Your task to perform on an android device: Search for Mexican restaurants on Maps Image 0: 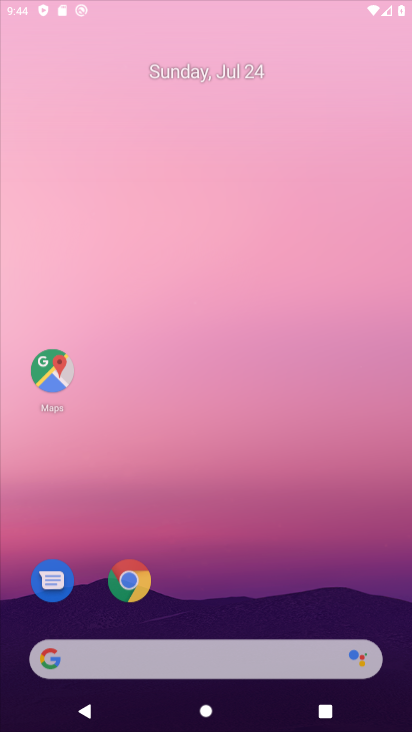
Step 0: drag from (260, 231) to (267, 146)
Your task to perform on an android device: Search for Mexican restaurants on Maps Image 1: 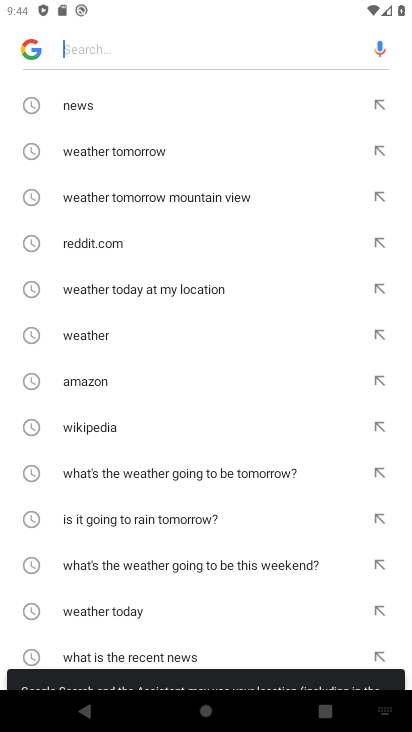
Step 1: press back button
Your task to perform on an android device: Search for Mexican restaurants on Maps Image 2: 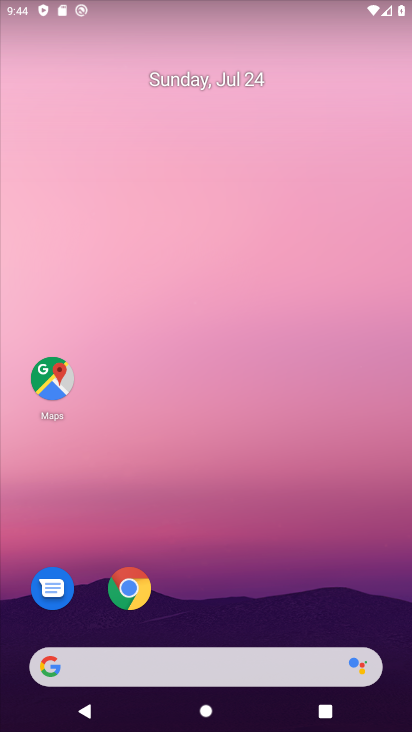
Step 2: drag from (231, 477) to (213, 74)
Your task to perform on an android device: Search for Mexican restaurants on Maps Image 3: 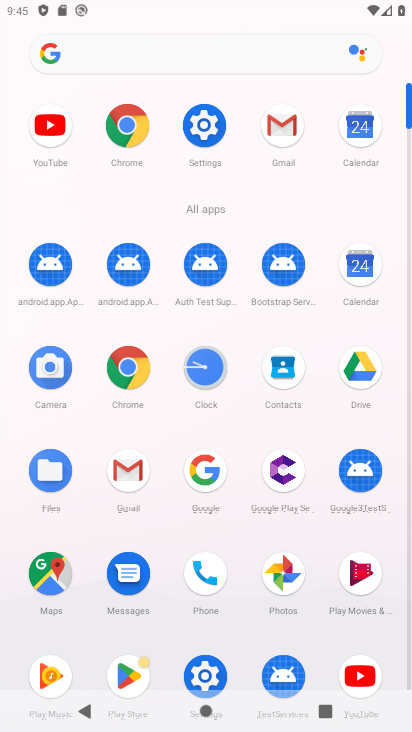
Step 3: click (56, 580)
Your task to perform on an android device: Search for Mexican restaurants on Maps Image 4: 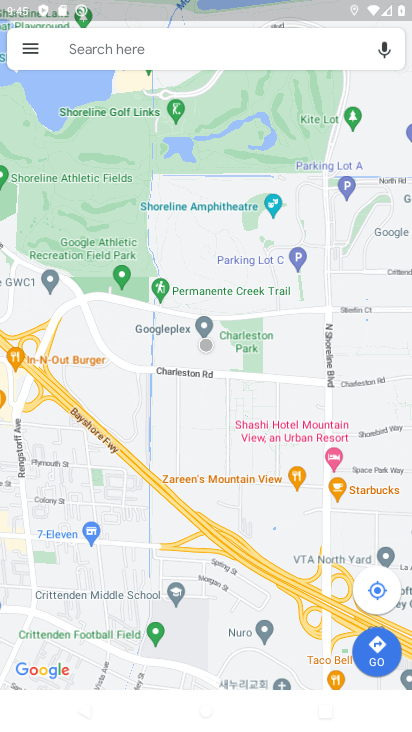
Step 4: click (71, 35)
Your task to perform on an android device: Search for Mexican restaurants on Maps Image 5: 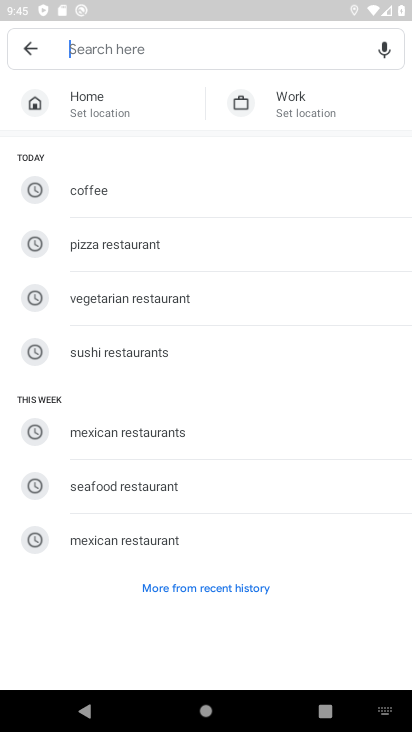
Step 5: click (131, 435)
Your task to perform on an android device: Search for Mexican restaurants on Maps Image 6: 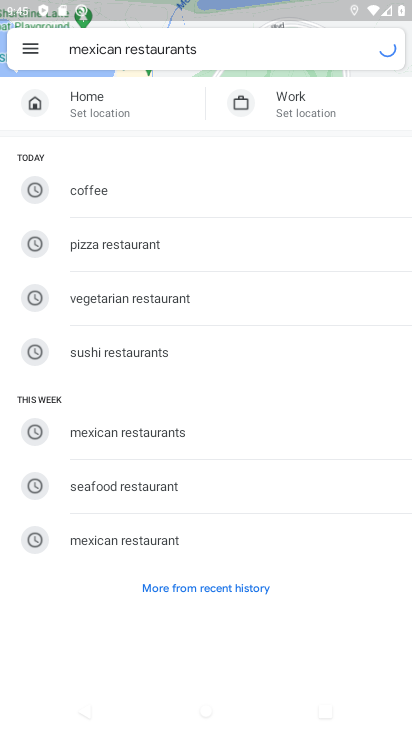
Step 6: click (130, 434)
Your task to perform on an android device: Search for Mexican restaurants on Maps Image 7: 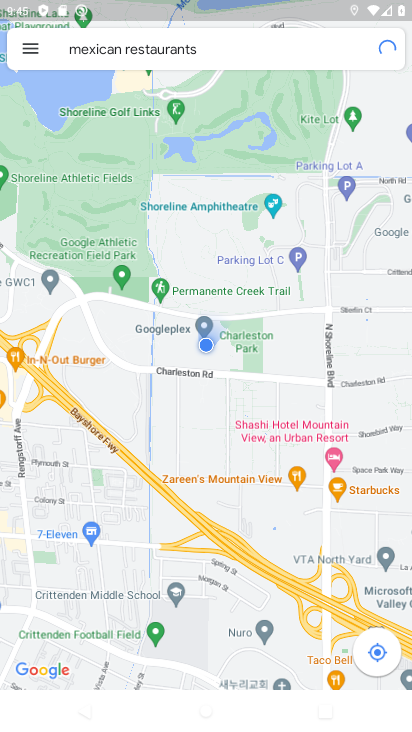
Step 7: click (130, 434)
Your task to perform on an android device: Search for Mexican restaurants on Maps Image 8: 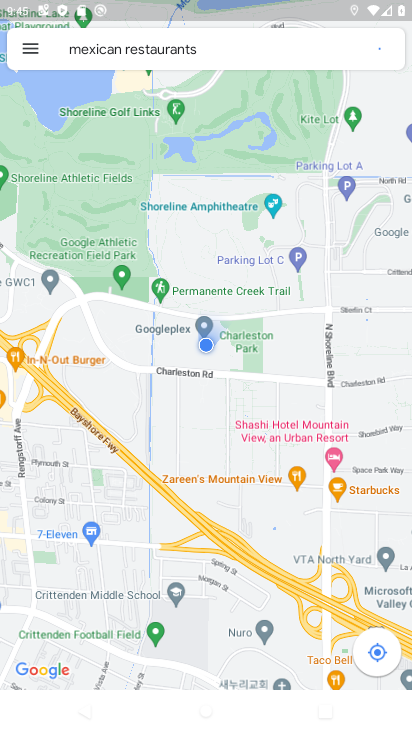
Step 8: task complete